Your task to perform on an android device: Search for vegetarian restaurants on Maps Image 0: 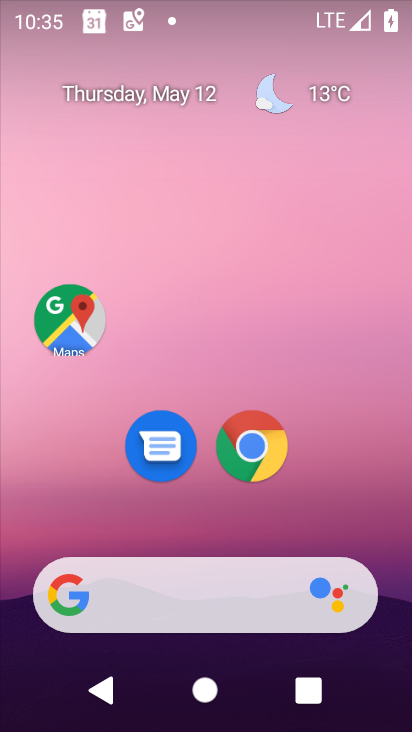
Step 0: drag from (139, 552) to (138, 25)
Your task to perform on an android device: Search for vegetarian restaurants on Maps Image 1: 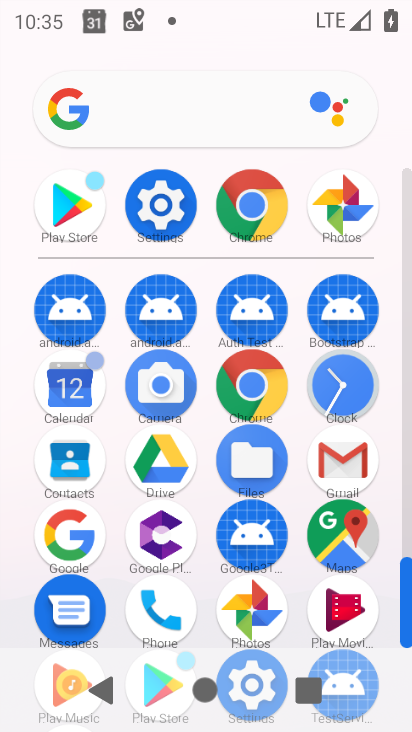
Step 1: click (350, 538)
Your task to perform on an android device: Search for vegetarian restaurants on Maps Image 2: 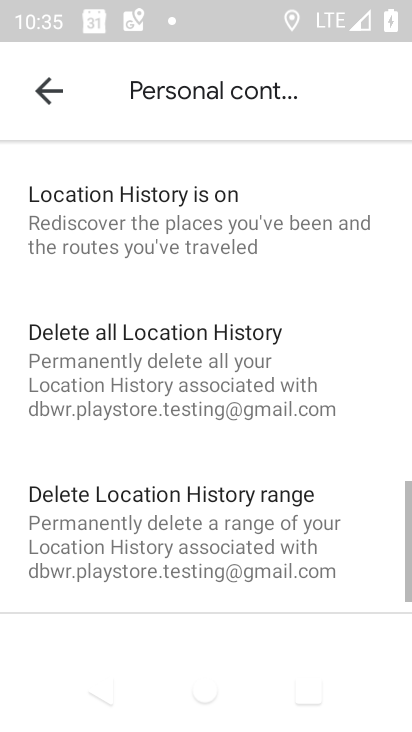
Step 2: press back button
Your task to perform on an android device: Search for vegetarian restaurants on Maps Image 3: 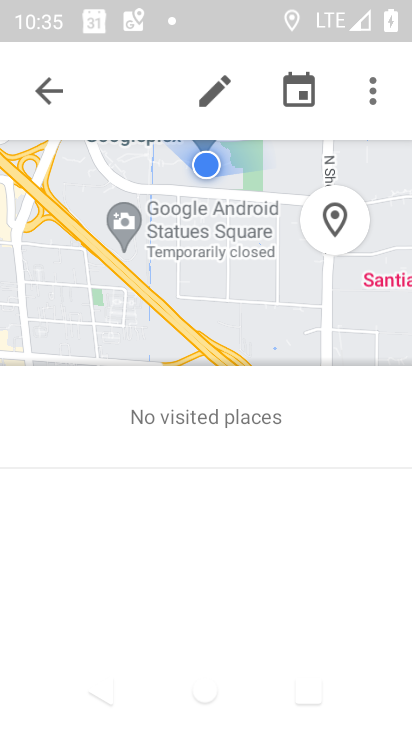
Step 3: press back button
Your task to perform on an android device: Search for vegetarian restaurants on Maps Image 4: 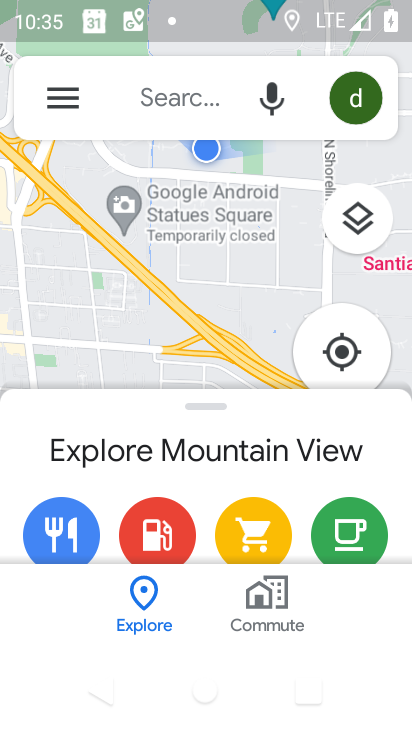
Step 4: click (250, 108)
Your task to perform on an android device: Search for vegetarian restaurants on Maps Image 5: 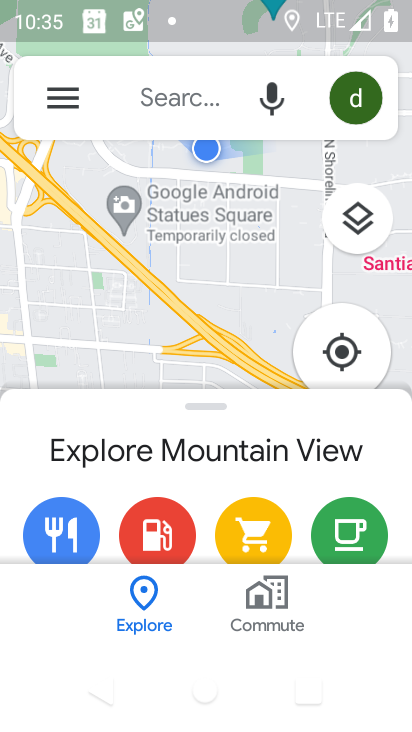
Step 5: click (250, 108)
Your task to perform on an android device: Search for vegetarian restaurants on Maps Image 6: 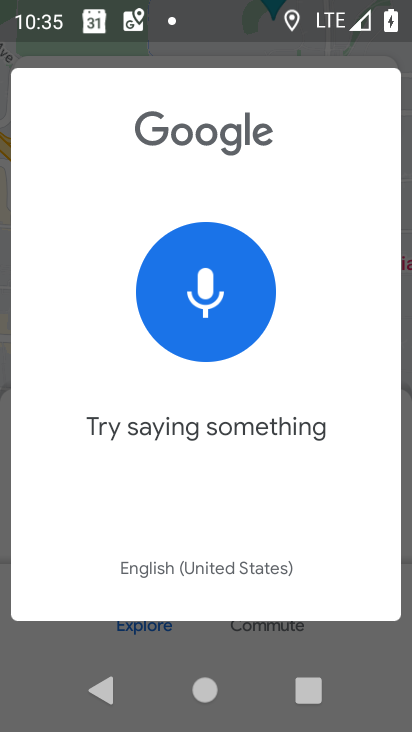
Step 6: press back button
Your task to perform on an android device: Search for vegetarian restaurants on Maps Image 7: 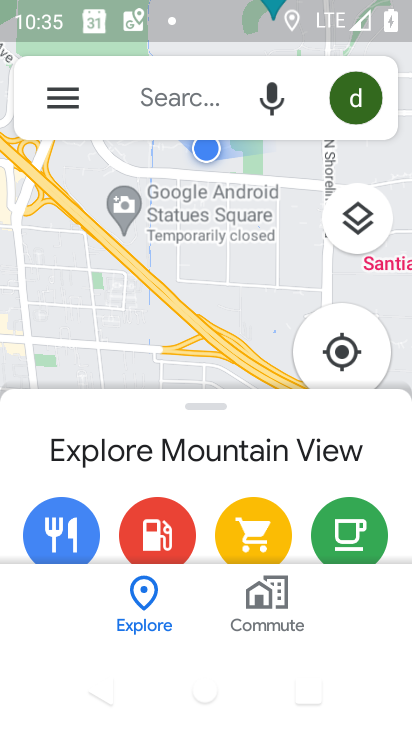
Step 7: click (164, 94)
Your task to perform on an android device: Search for vegetarian restaurants on Maps Image 8: 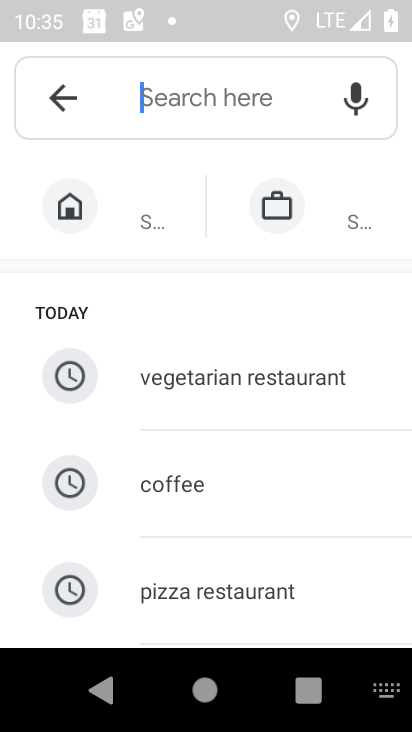
Step 8: click (225, 389)
Your task to perform on an android device: Search for vegetarian restaurants on Maps Image 9: 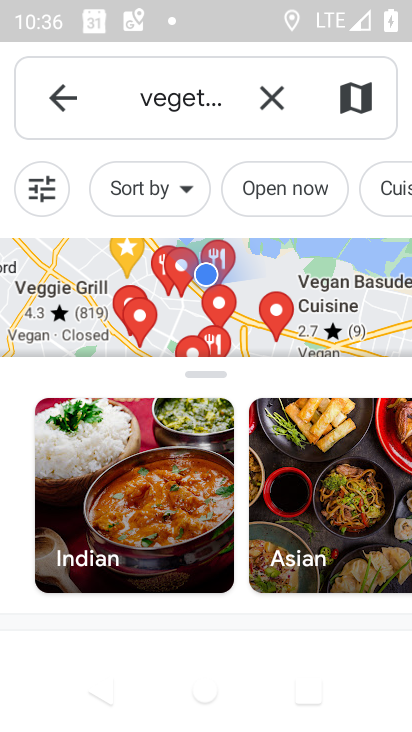
Step 9: task complete